Your task to perform on an android device: Go to Yahoo.com Image 0: 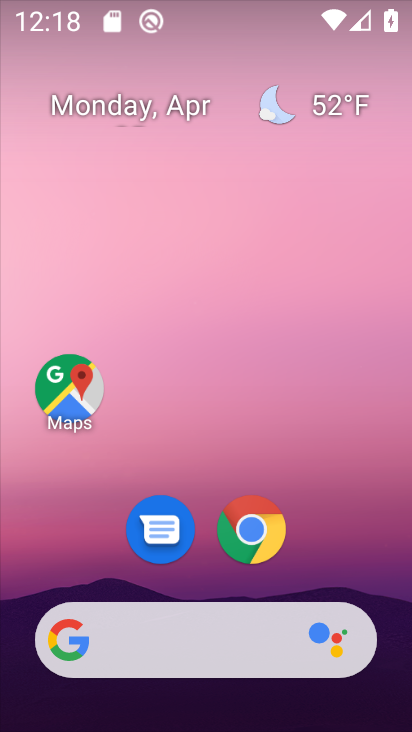
Step 0: click (239, 521)
Your task to perform on an android device: Go to Yahoo.com Image 1: 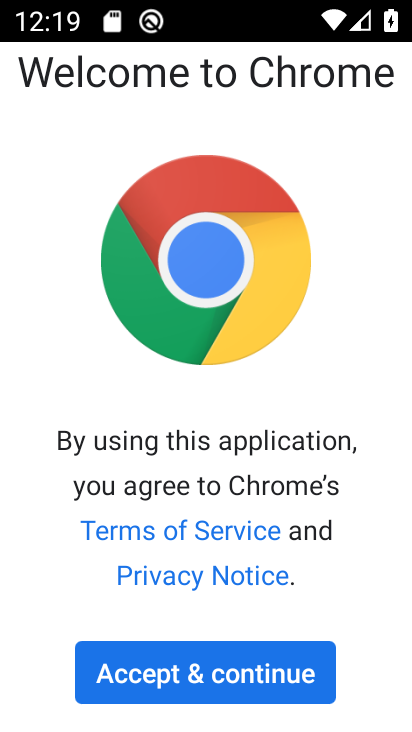
Step 1: click (167, 679)
Your task to perform on an android device: Go to Yahoo.com Image 2: 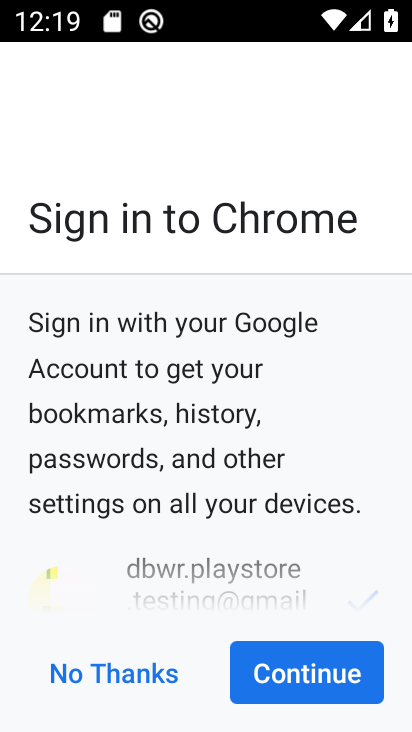
Step 2: click (291, 662)
Your task to perform on an android device: Go to Yahoo.com Image 3: 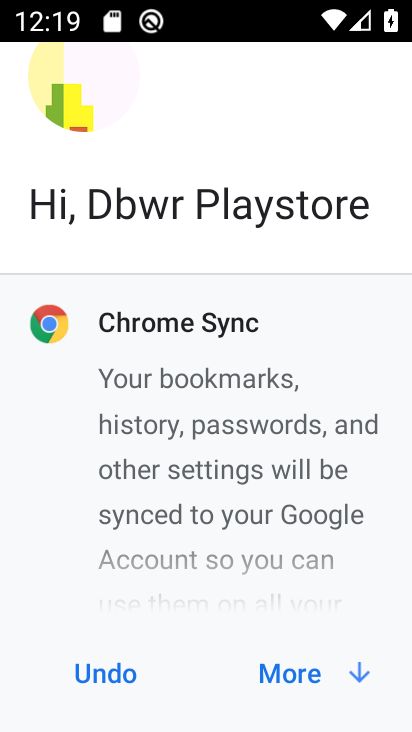
Step 3: click (291, 665)
Your task to perform on an android device: Go to Yahoo.com Image 4: 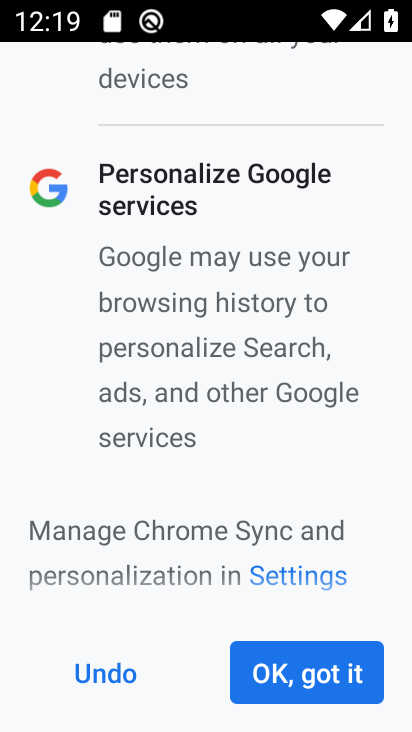
Step 4: click (292, 667)
Your task to perform on an android device: Go to Yahoo.com Image 5: 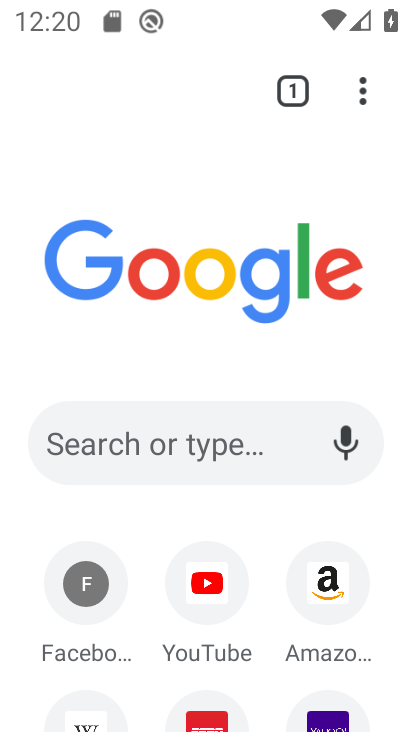
Step 5: click (161, 427)
Your task to perform on an android device: Go to Yahoo.com Image 6: 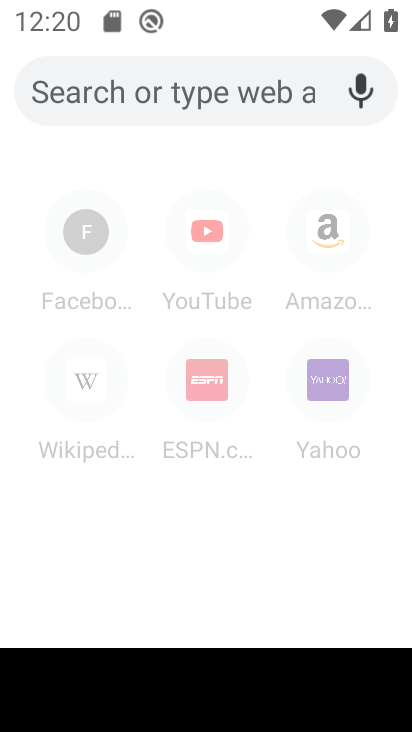
Step 6: type "Yahoo.com"
Your task to perform on an android device: Go to Yahoo.com Image 7: 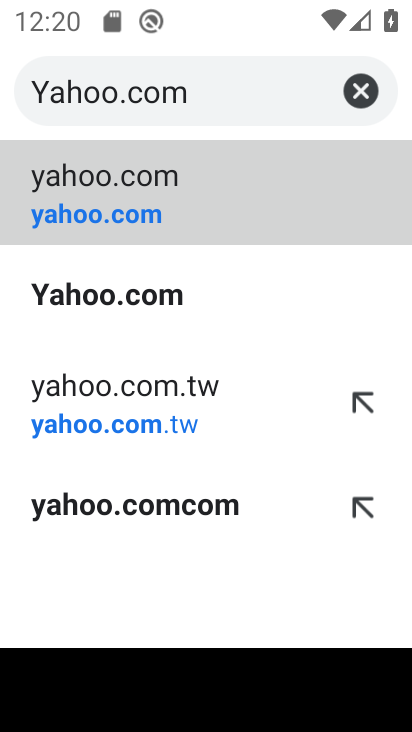
Step 7: click (73, 182)
Your task to perform on an android device: Go to Yahoo.com Image 8: 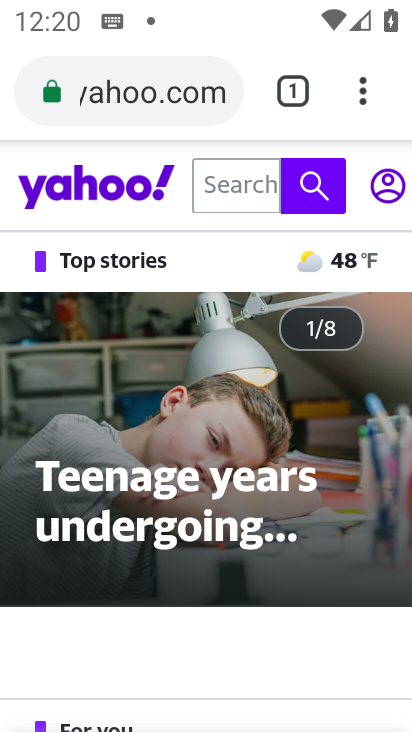
Step 8: task complete